Your task to perform on an android device: What's US dollar exchange rate against the Chinese Yuan? Image 0: 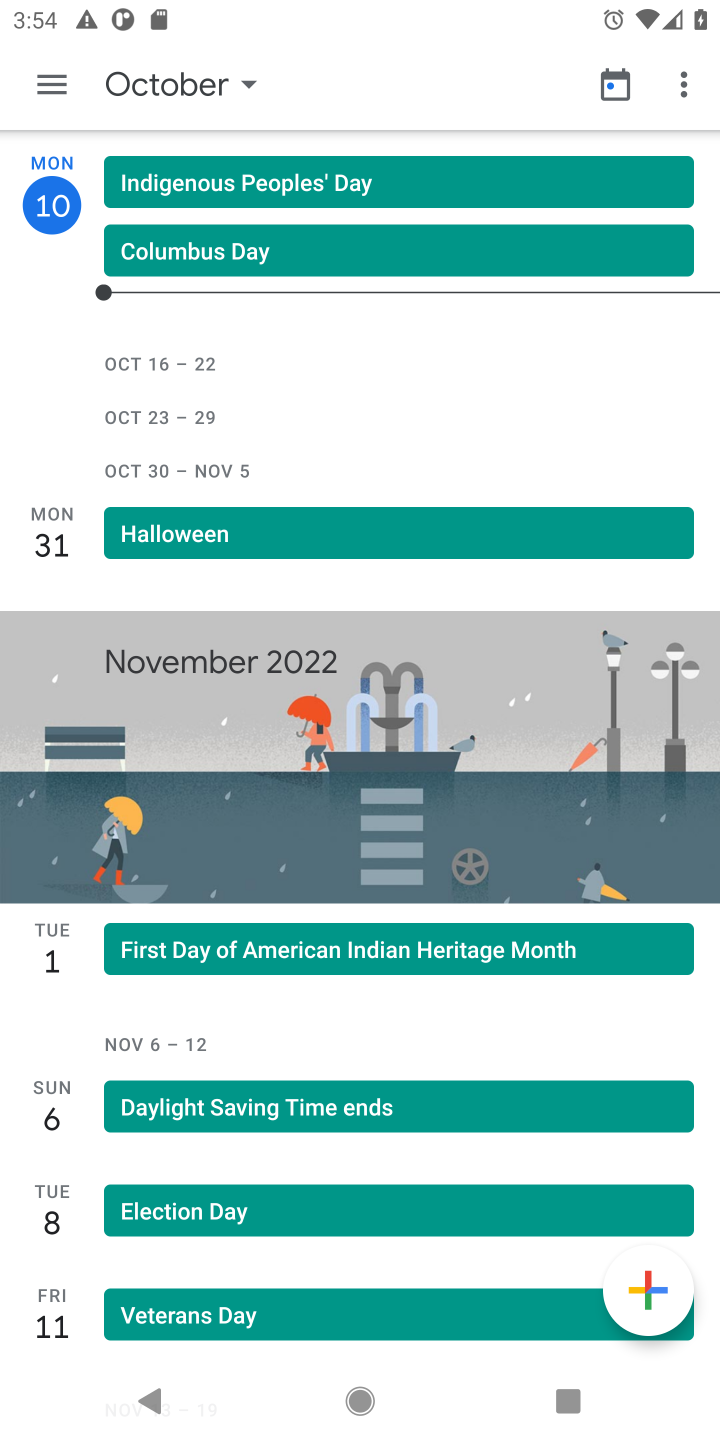
Step 0: press home button
Your task to perform on an android device: What's US dollar exchange rate against the Chinese Yuan? Image 1: 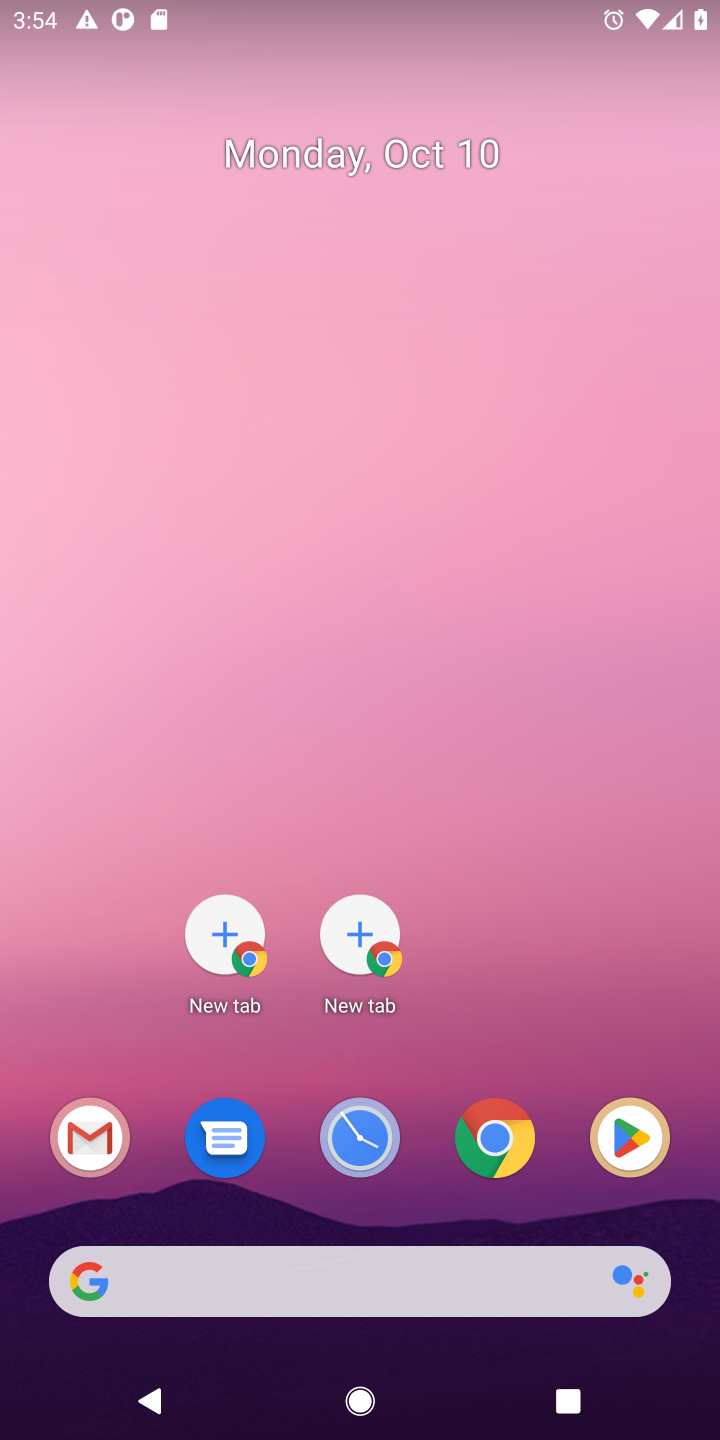
Step 1: click (503, 1145)
Your task to perform on an android device: What's US dollar exchange rate against the Chinese Yuan? Image 2: 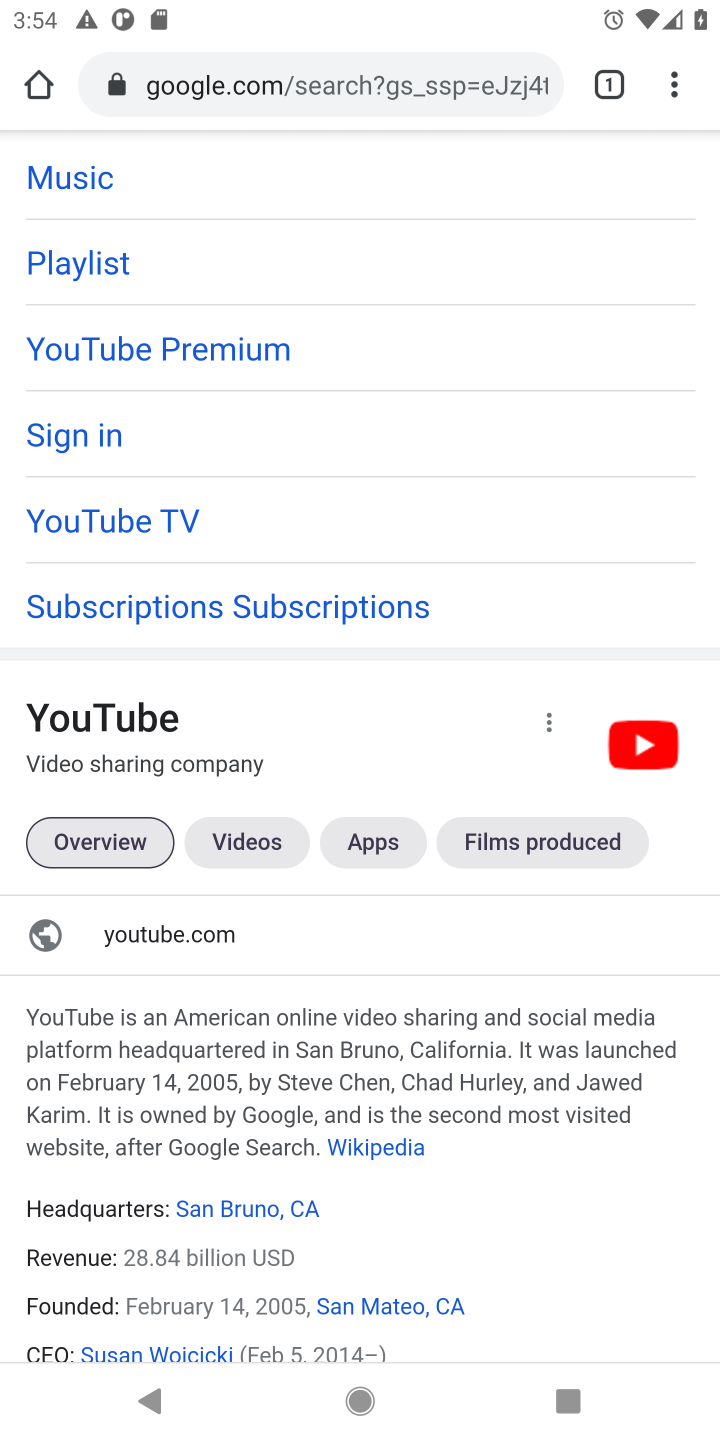
Step 2: click (323, 94)
Your task to perform on an android device: What's US dollar exchange rate against the Chinese Yuan? Image 3: 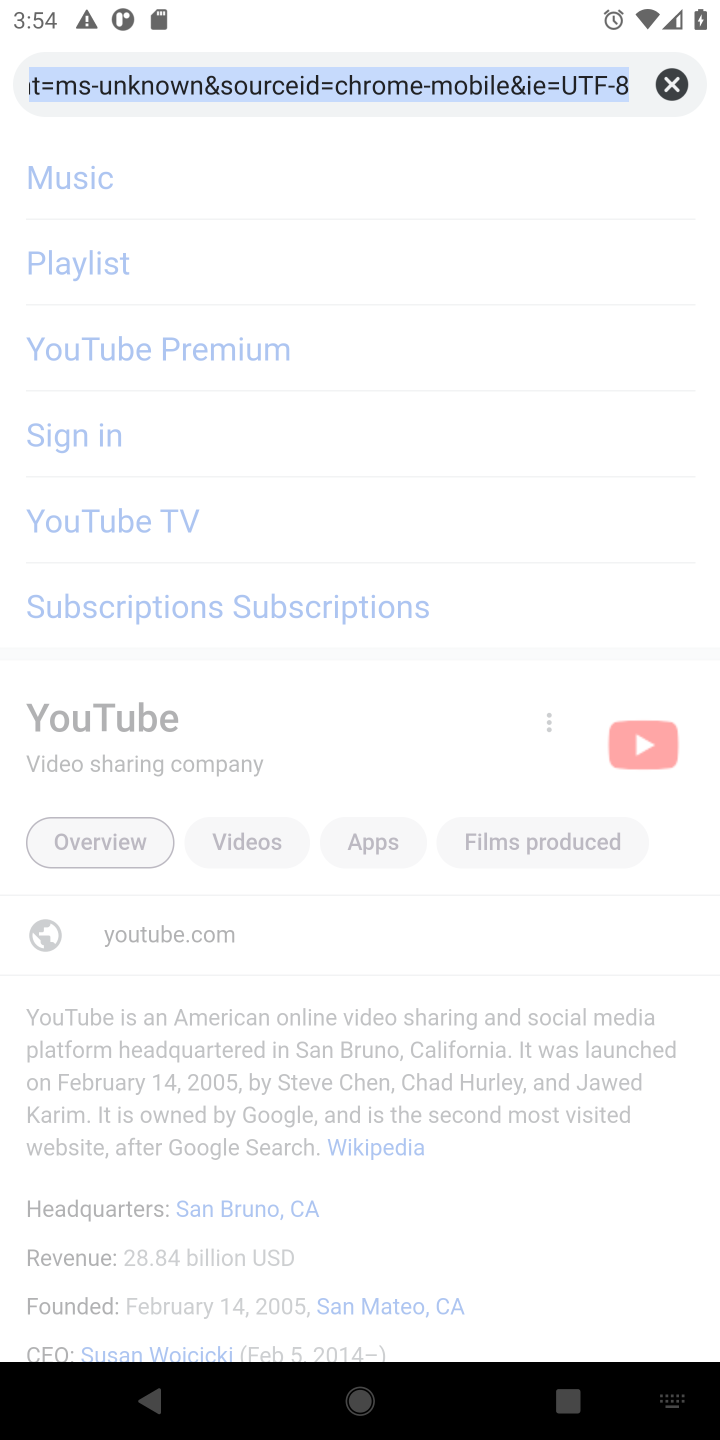
Step 3: type "US dollar exchange rate against the chinese Yuan"
Your task to perform on an android device: What's US dollar exchange rate against the Chinese Yuan? Image 4: 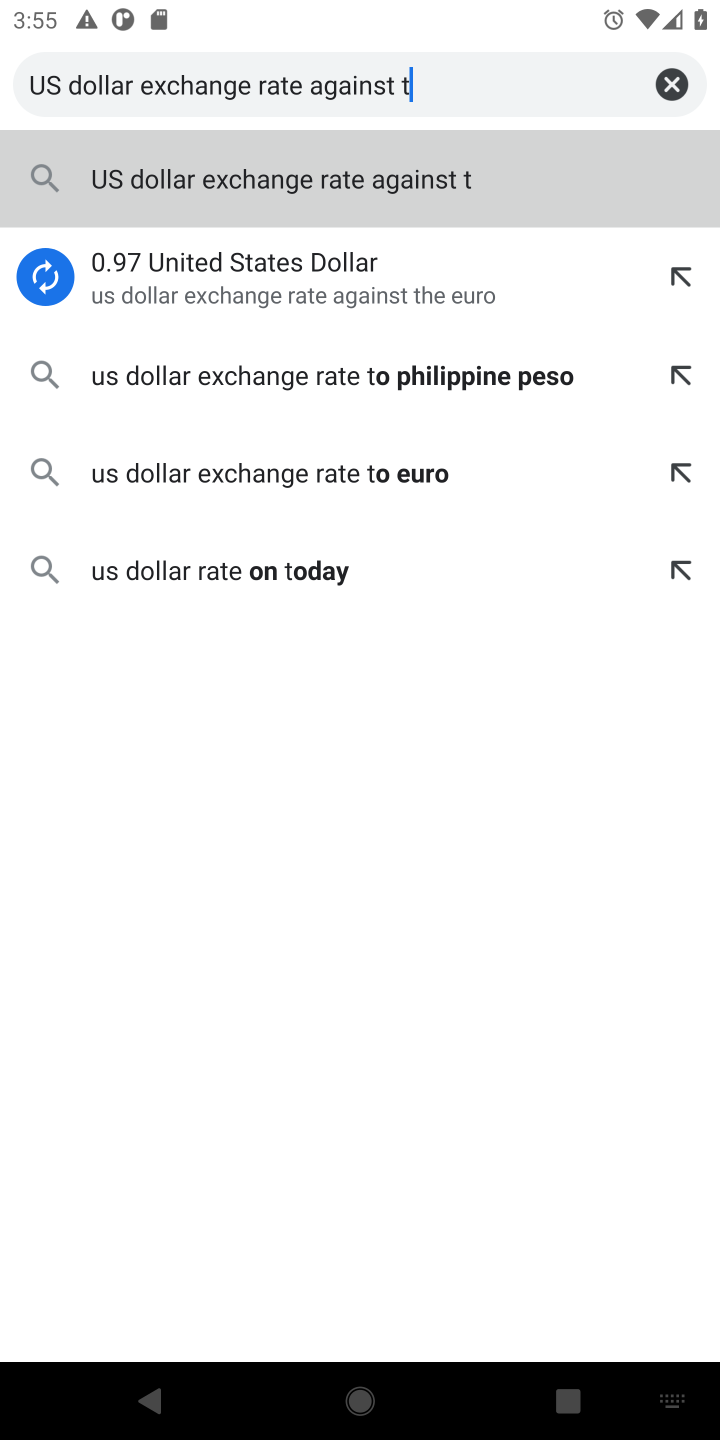
Step 4: type "he Chinese Yuan"
Your task to perform on an android device: What's US dollar exchange rate against the Chinese Yuan? Image 5: 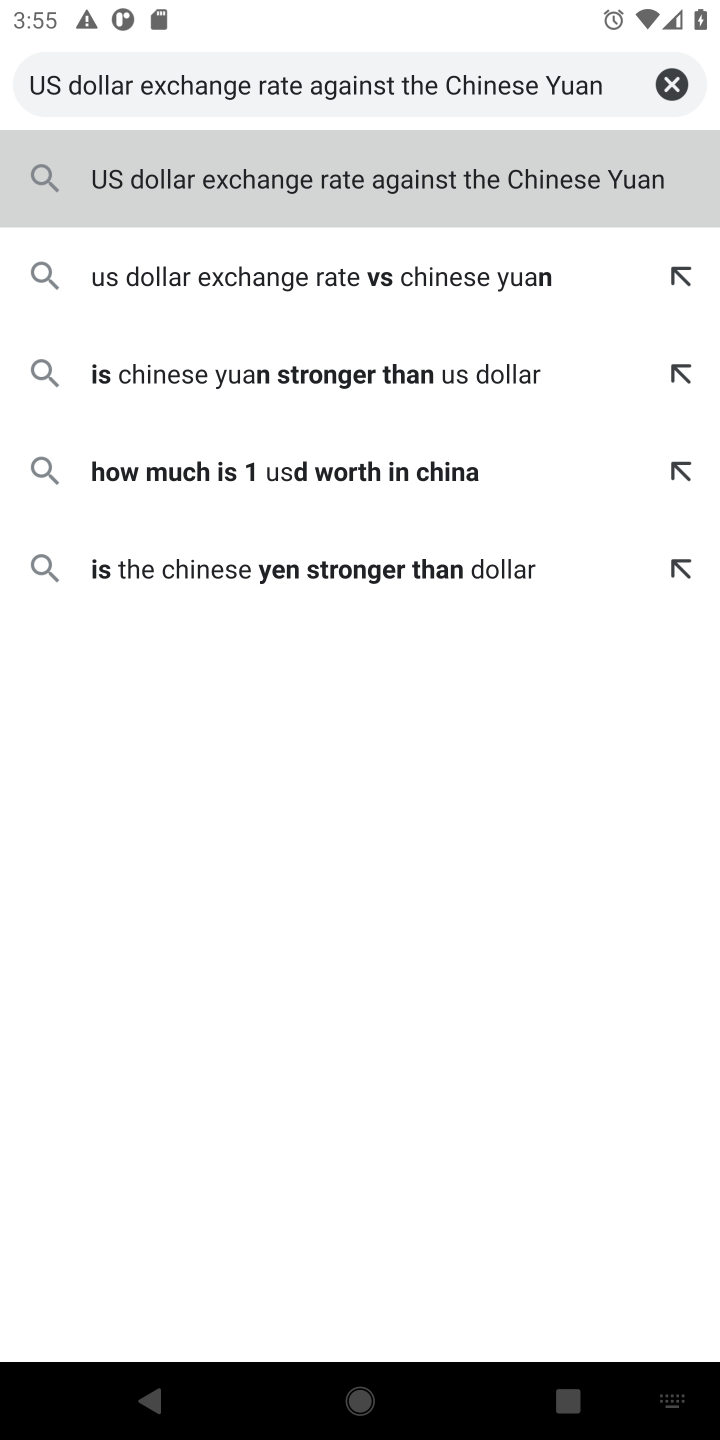
Step 5: type ""
Your task to perform on an android device: What's US dollar exchange rate against the Chinese Yuan? Image 6: 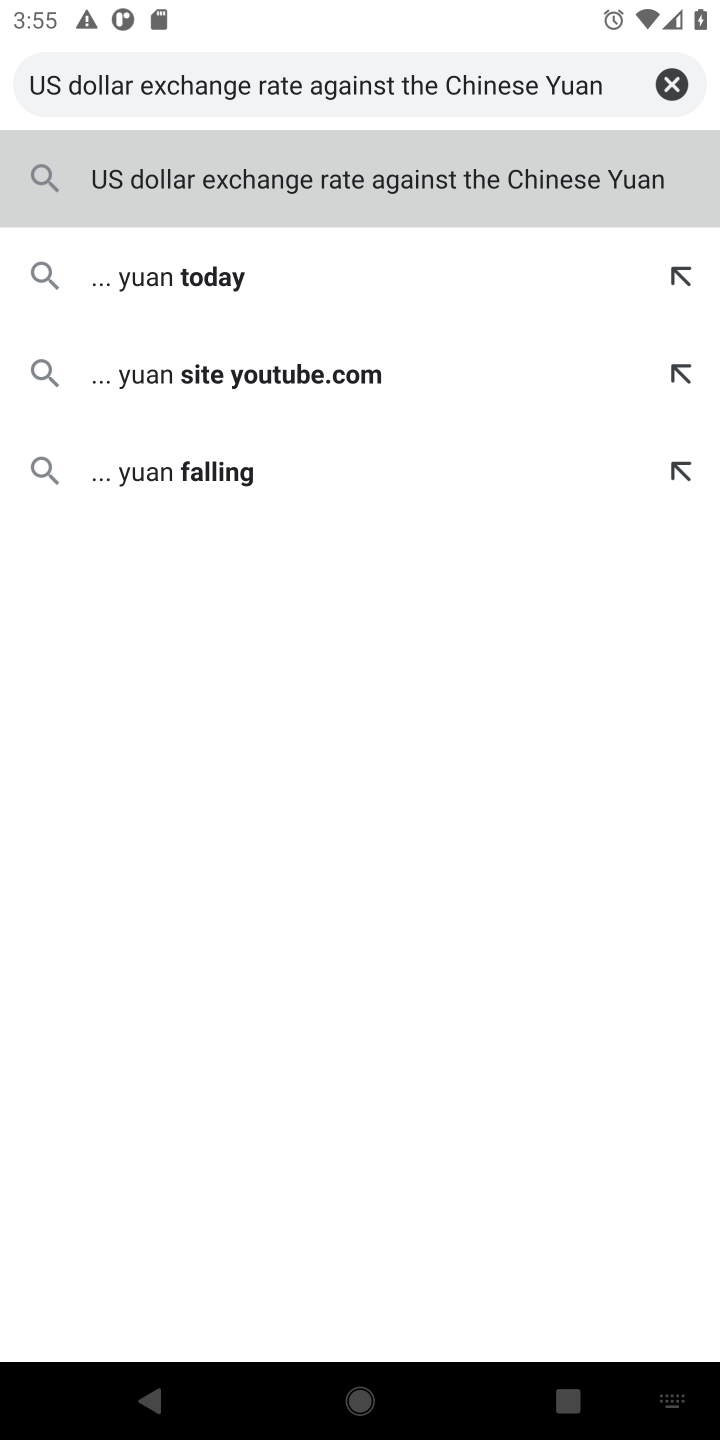
Step 6: press enter
Your task to perform on an android device: What's US dollar exchange rate against the Chinese Yuan? Image 7: 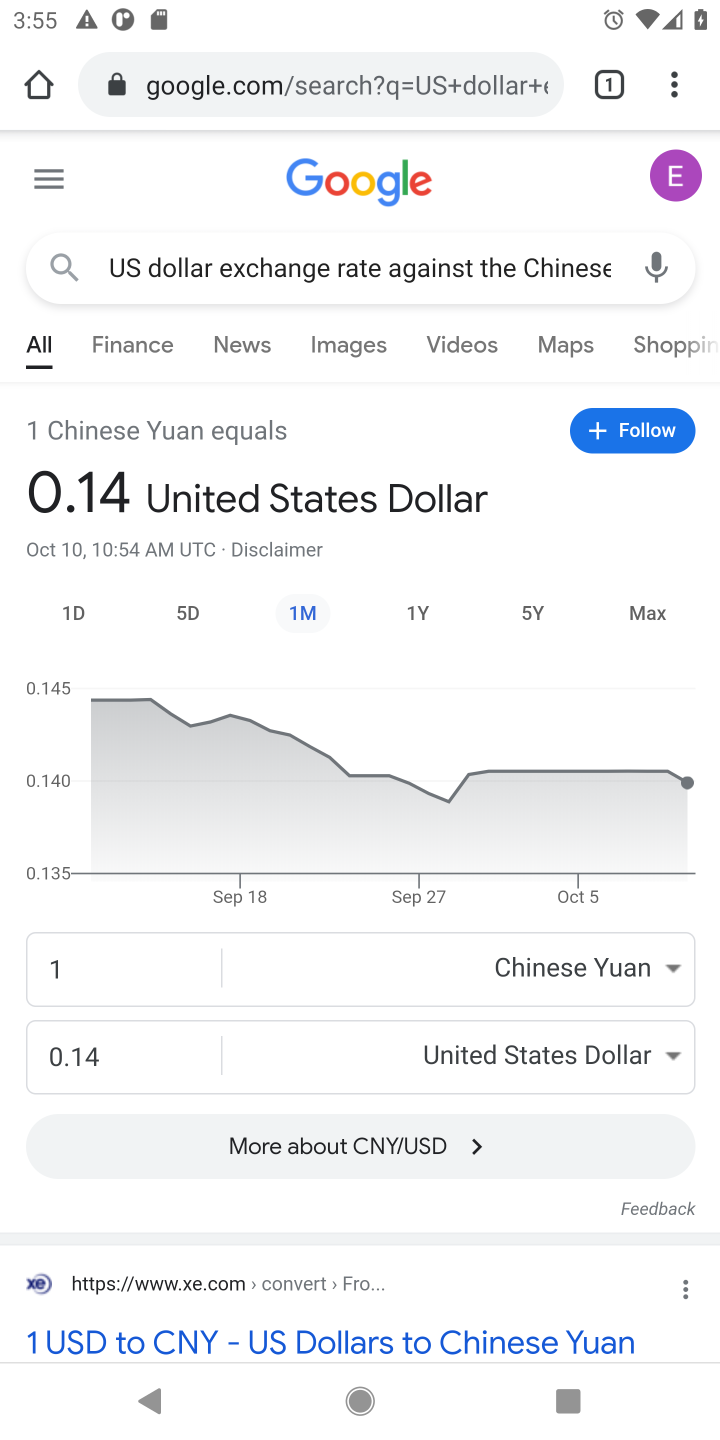
Step 7: task complete